Your task to perform on an android device: delete location history Image 0: 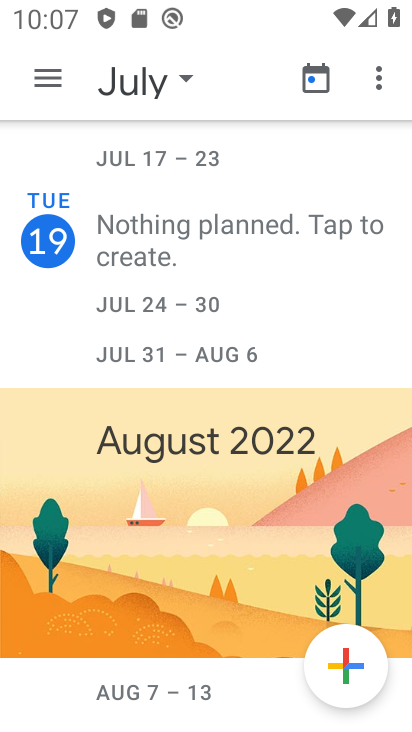
Step 0: press home button
Your task to perform on an android device: delete location history Image 1: 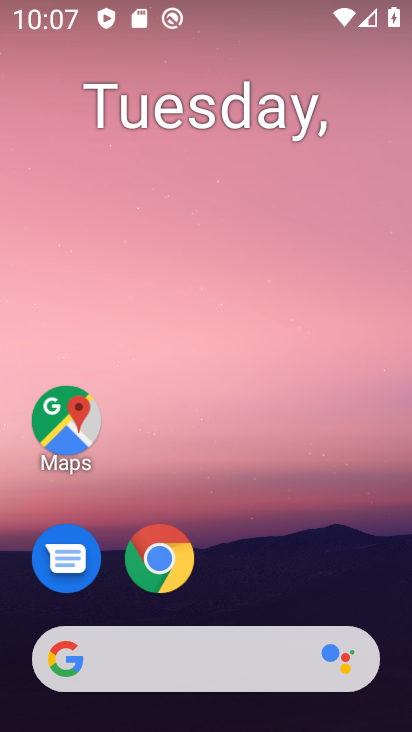
Step 1: drag from (300, 553) to (303, 106)
Your task to perform on an android device: delete location history Image 2: 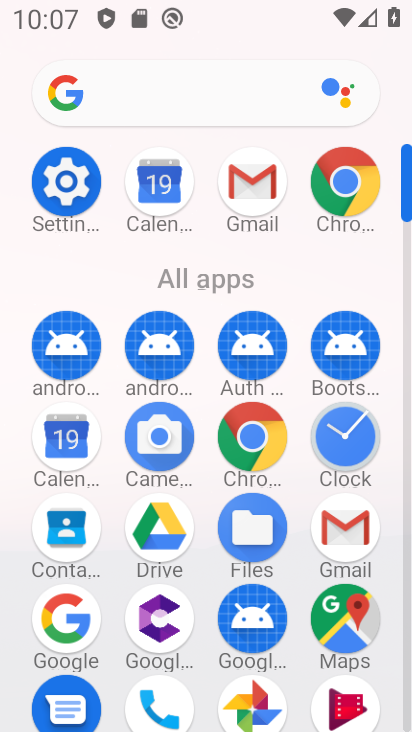
Step 2: click (347, 610)
Your task to perform on an android device: delete location history Image 3: 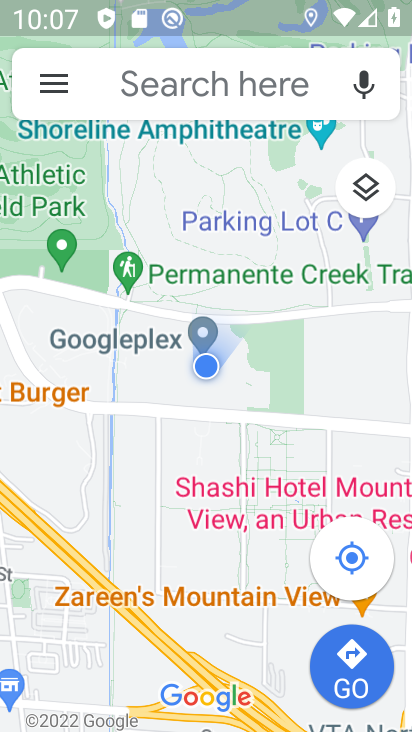
Step 3: click (59, 84)
Your task to perform on an android device: delete location history Image 4: 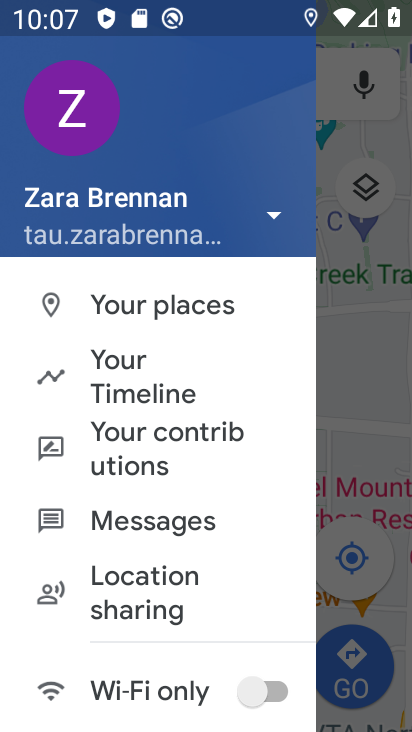
Step 4: click (134, 388)
Your task to perform on an android device: delete location history Image 5: 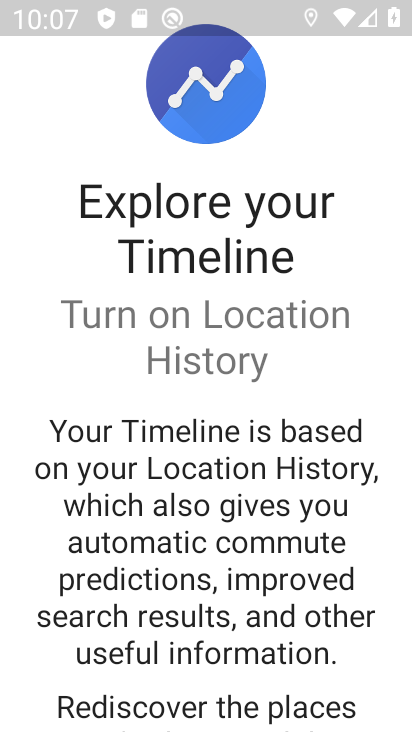
Step 5: drag from (309, 499) to (321, 394)
Your task to perform on an android device: delete location history Image 6: 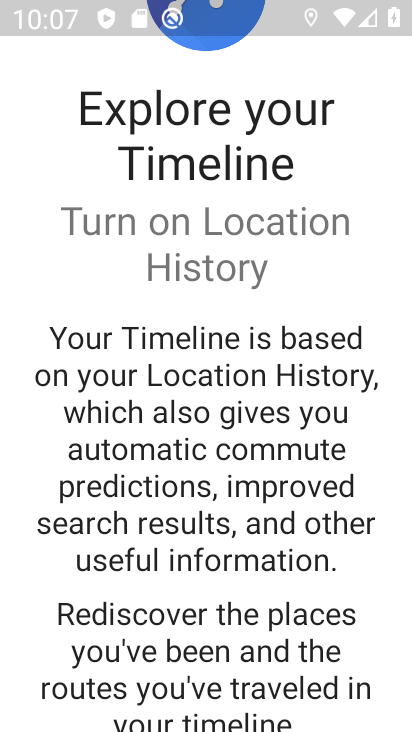
Step 6: drag from (360, 583) to (366, 349)
Your task to perform on an android device: delete location history Image 7: 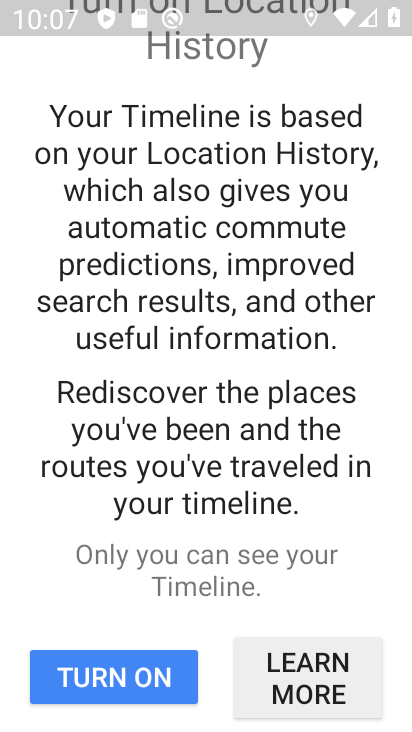
Step 7: drag from (265, 564) to (267, 359)
Your task to perform on an android device: delete location history Image 8: 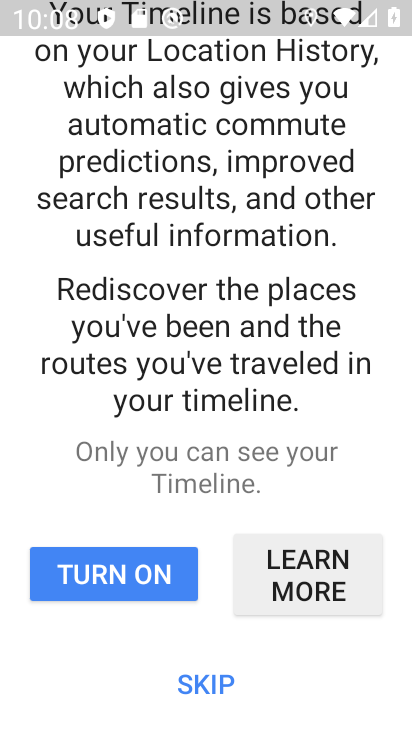
Step 8: click (238, 666)
Your task to perform on an android device: delete location history Image 9: 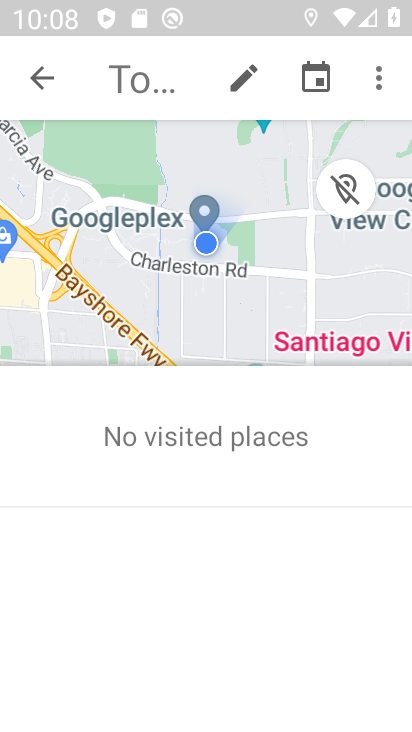
Step 9: click (384, 82)
Your task to perform on an android device: delete location history Image 10: 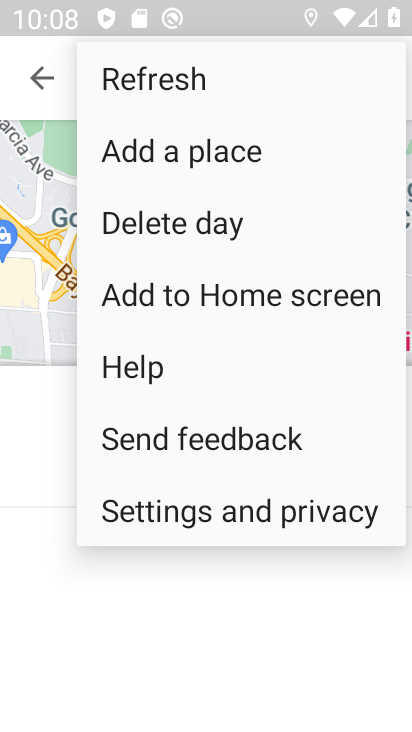
Step 10: click (314, 507)
Your task to perform on an android device: delete location history Image 11: 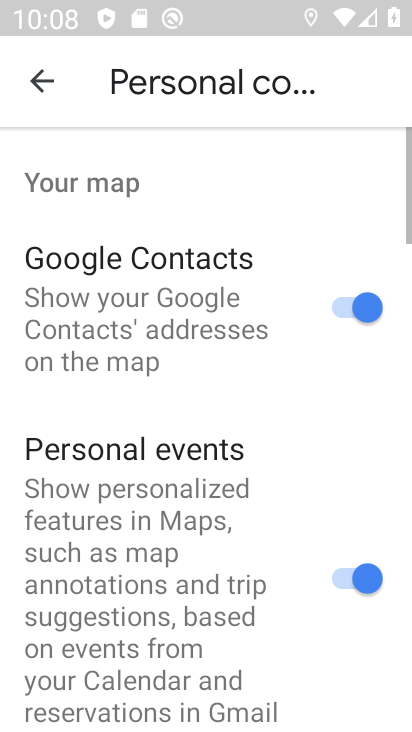
Step 11: drag from (292, 581) to (299, 416)
Your task to perform on an android device: delete location history Image 12: 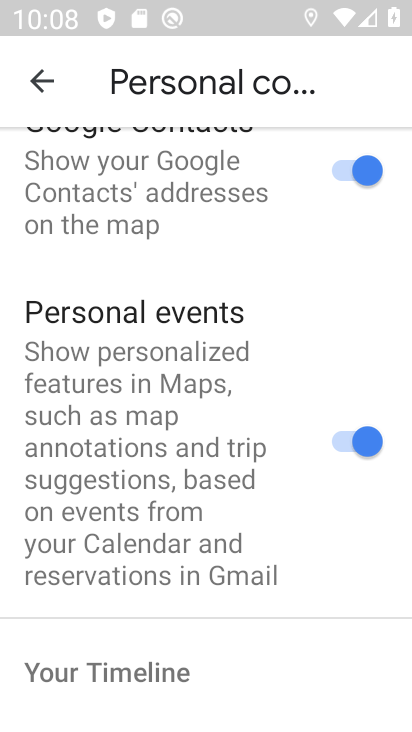
Step 12: drag from (306, 602) to (300, 415)
Your task to perform on an android device: delete location history Image 13: 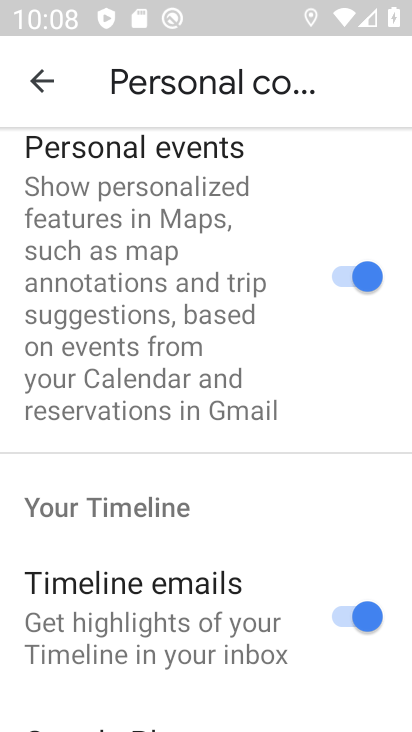
Step 13: drag from (282, 573) to (294, 402)
Your task to perform on an android device: delete location history Image 14: 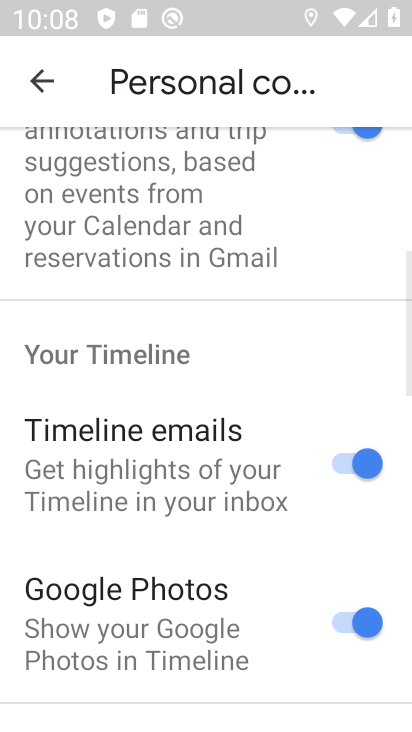
Step 14: drag from (280, 609) to (294, 398)
Your task to perform on an android device: delete location history Image 15: 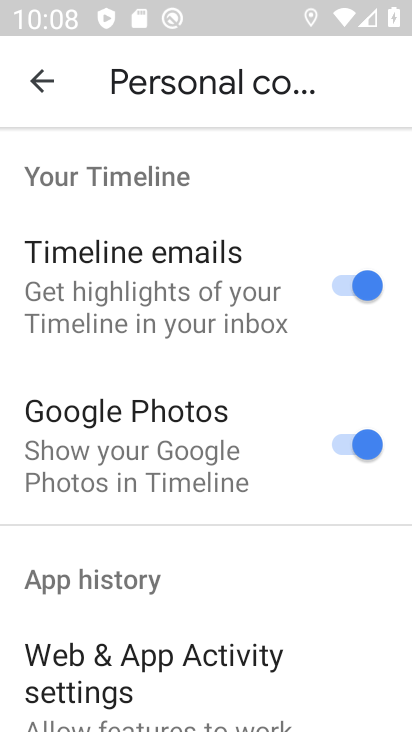
Step 15: drag from (327, 582) to (282, 369)
Your task to perform on an android device: delete location history Image 16: 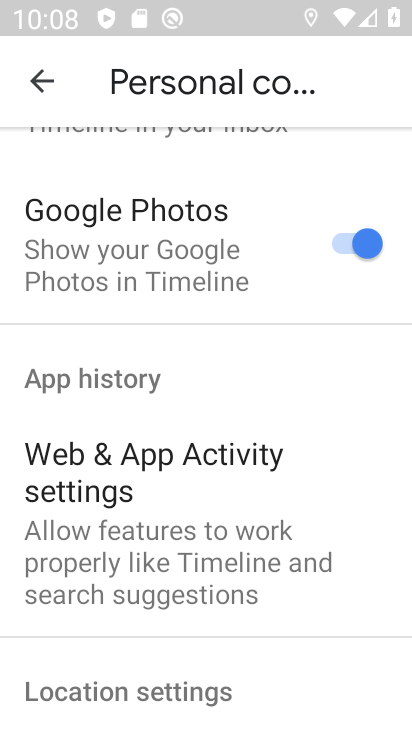
Step 16: drag from (304, 621) to (307, 396)
Your task to perform on an android device: delete location history Image 17: 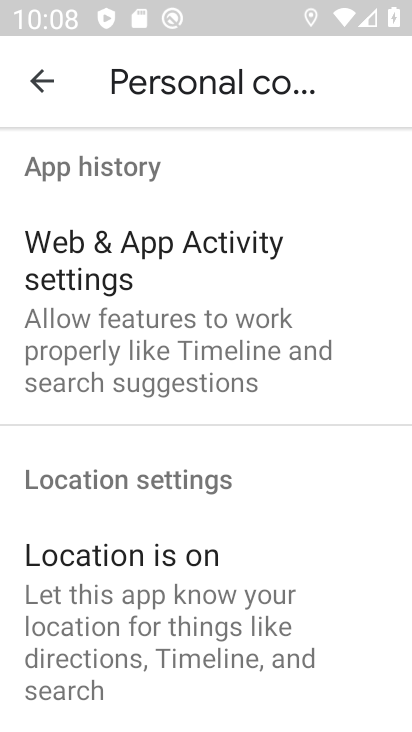
Step 17: drag from (364, 607) to (348, 353)
Your task to perform on an android device: delete location history Image 18: 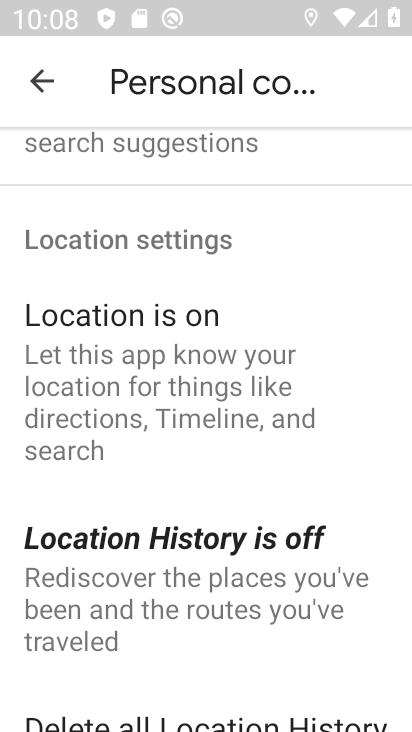
Step 18: drag from (360, 629) to (341, 358)
Your task to perform on an android device: delete location history Image 19: 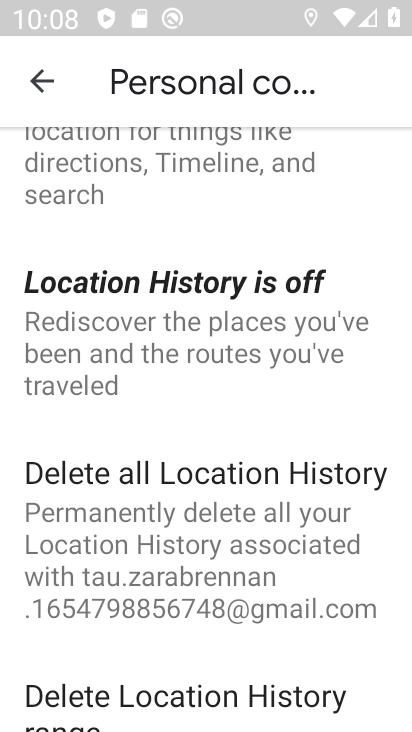
Step 19: click (318, 530)
Your task to perform on an android device: delete location history Image 20: 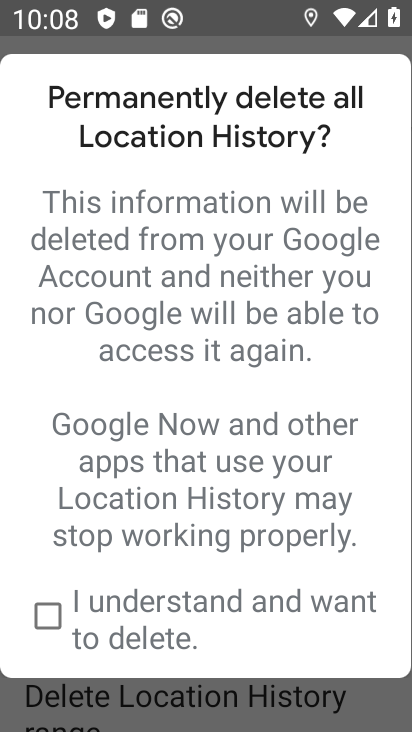
Step 20: click (43, 615)
Your task to perform on an android device: delete location history Image 21: 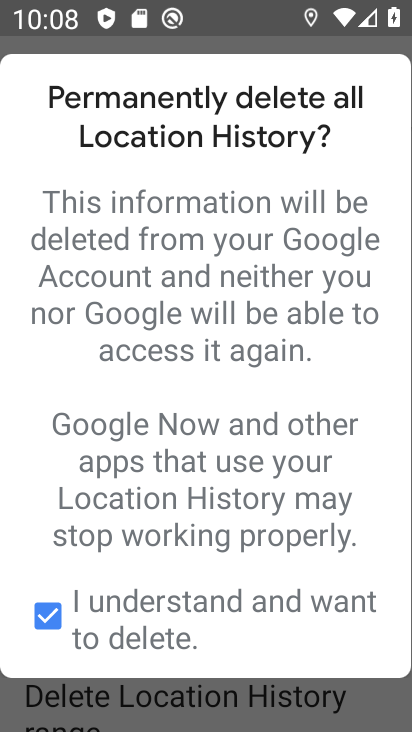
Step 21: task complete